Your task to perform on an android device: read, delete, or share a saved page in the chrome app Image 0: 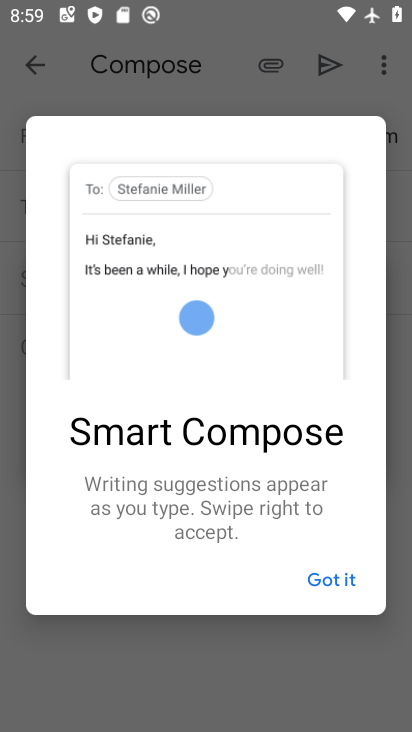
Step 0: press home button
Your task to perform on an android device: read, delete, or share a saved page in the chrome app Image 1: 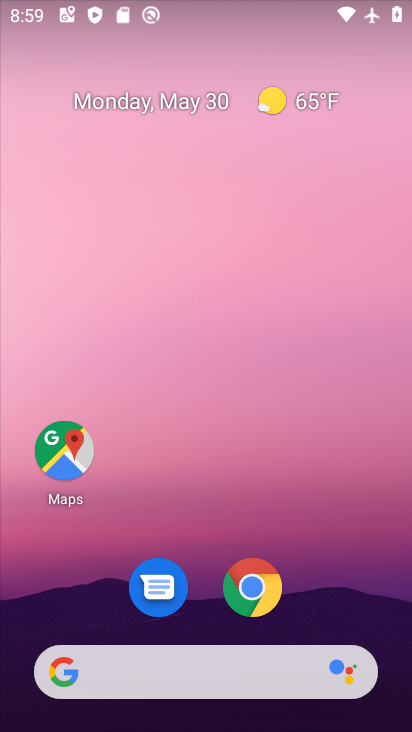
Step 1: click (244, 589)
Your task to perform on an android device: read, delete, or share a saved page in the chrome app Image 2: 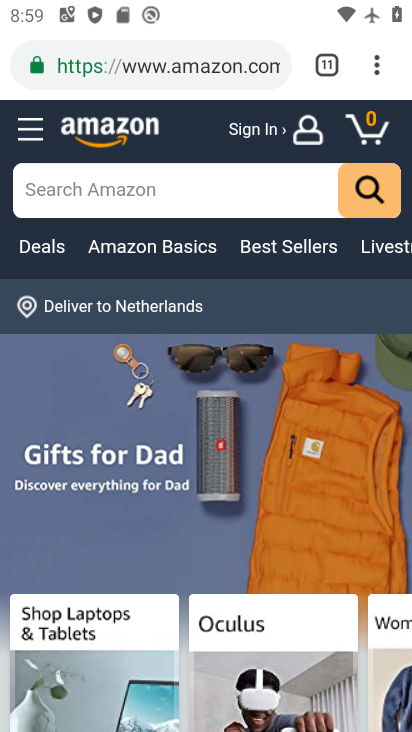
Step 2: drag from (374, 69) to (256, 416)
Your task to perform on an android device: read, delete, or share a saved page in the chrome app Image 3: 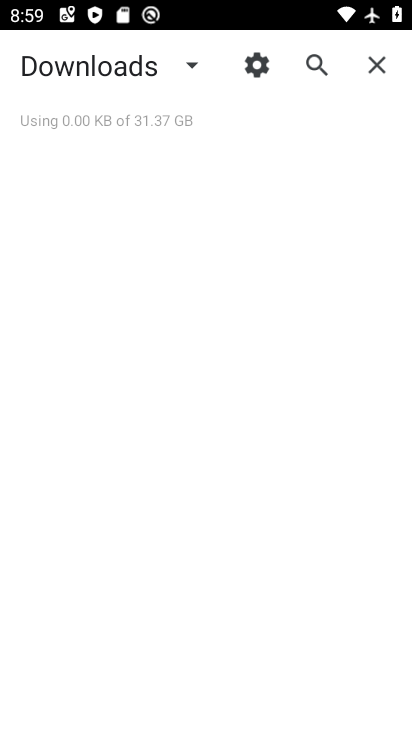
Step 3: click (175, 64)
Your task to perform on an android device: read, delete, or share a saved page in the chrome app Image 4: 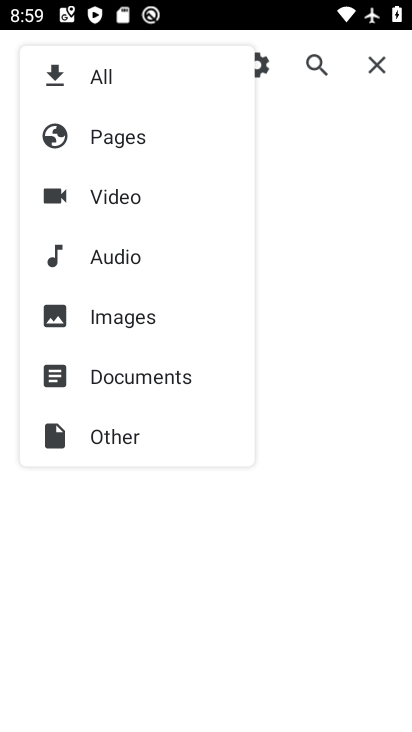
Step 4: click (126, 142)
Your task to perform on an android device: read, delete, or share a saved page in the chrome app Image 5: 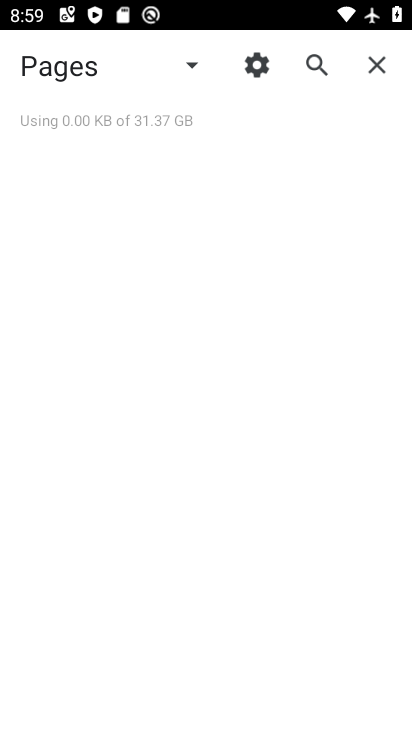
Step 5: task complete